Your task to perform on an android device: Search for Italian restaurants on Maps Image 0: 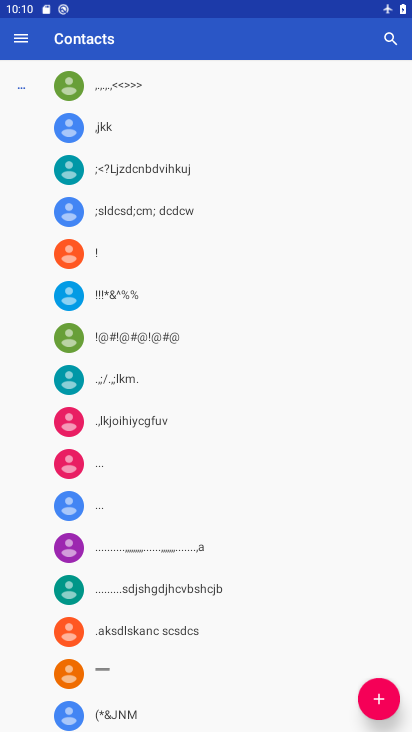
Step 0: click (390, 596)
Your task to perform on an android device: Search for Italian restaurants on Maps Image 1: 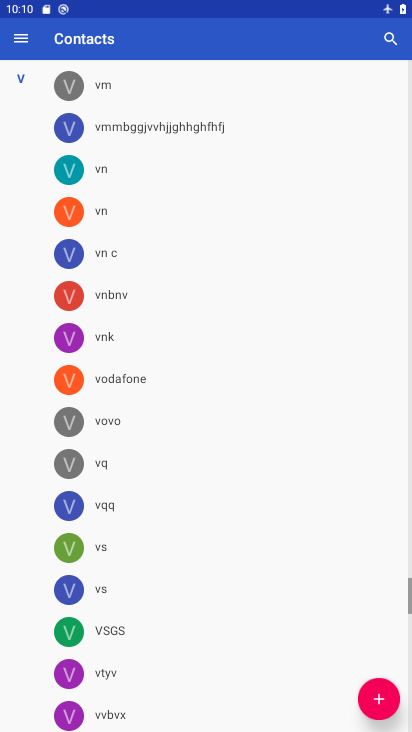
Step 1: press home button
Your task to perform on an android device: Search for Italian restaurants on Maps Image 2: 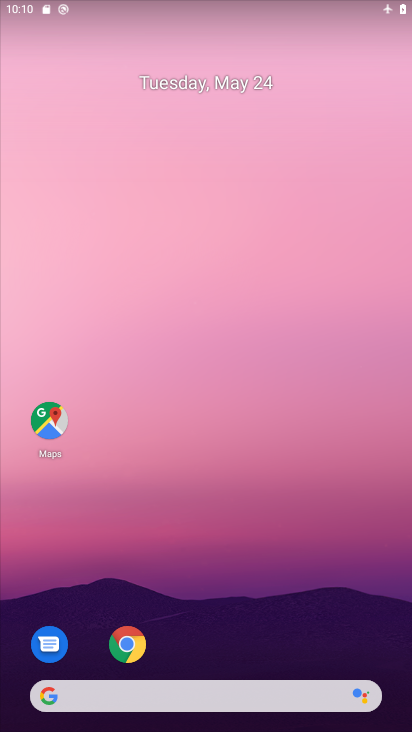
Step 2: click (53, 419)
Your task to perform on an android device: Search for Italian restaurants on Maps Image 3: 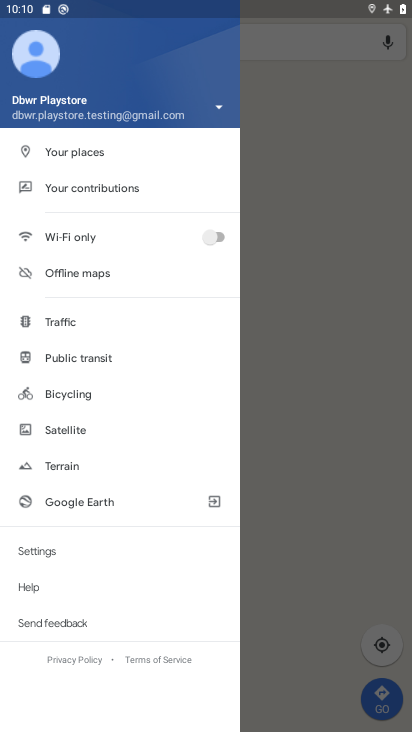
Step 3: click (286, 344)
Your task to perform on an android device: Search for Italian restaurants on Maps Image 4: 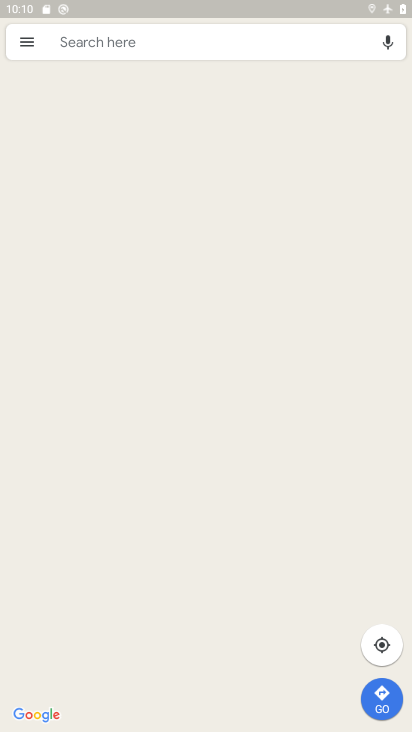
Step 4: click (143, 40)
Your task to perform on an android device: Search for Italian restaurants on Maps Image 5: 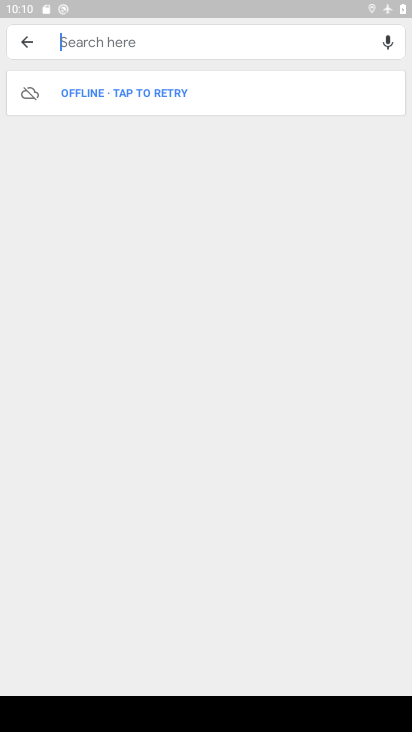
Step 5: type "italian"
Your task to perform on an android device: Search for Italian restaurants on Maps Image 6: 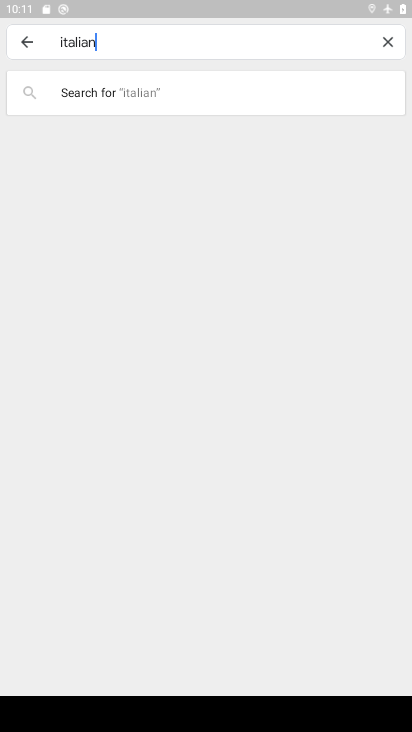
Step 6: task complete